Your task to perform on an android device: Search for pizza restaurants on Maps Image 0: 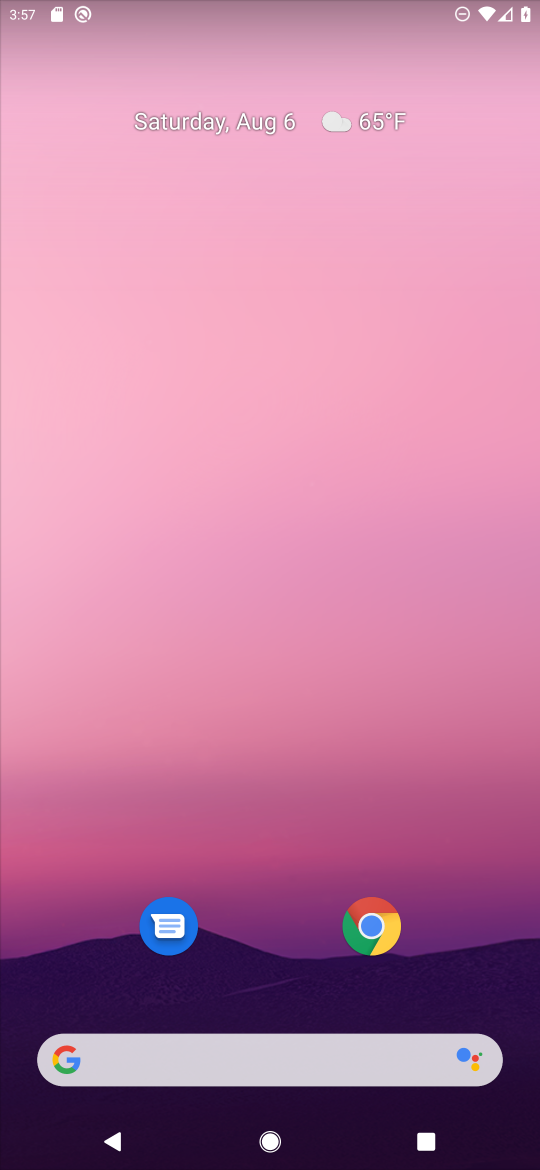
Step 0: drag from (265, 952) to (263, 293)
Your task to perform on an android device: Search for pizza restaurants on Maps Image 1: 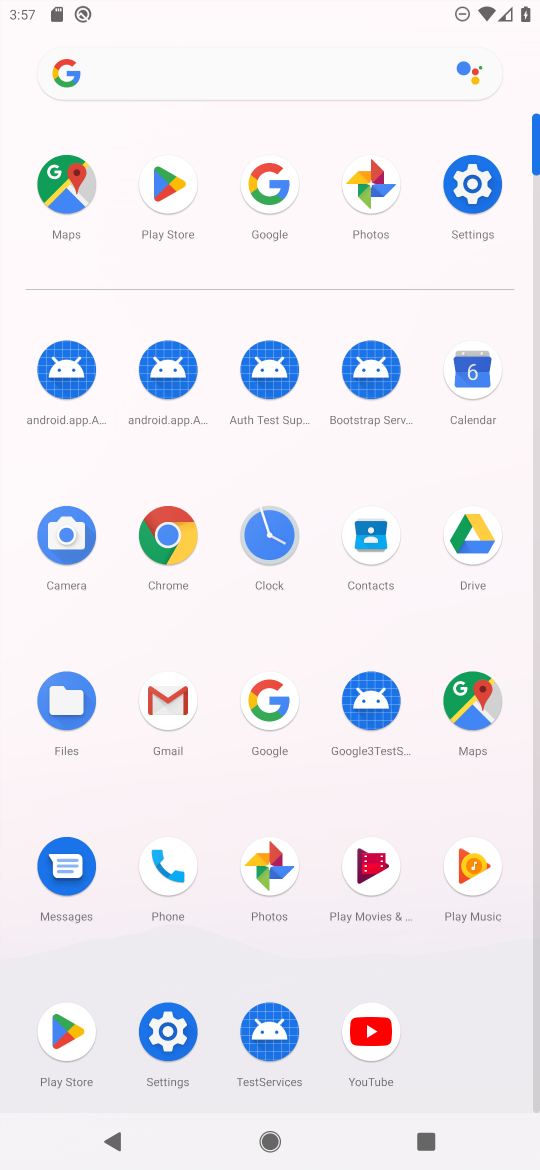
Step 1: click (70, 186)
Your task to perform on an android device: Search for pizza restaurants on Maps Image 2: 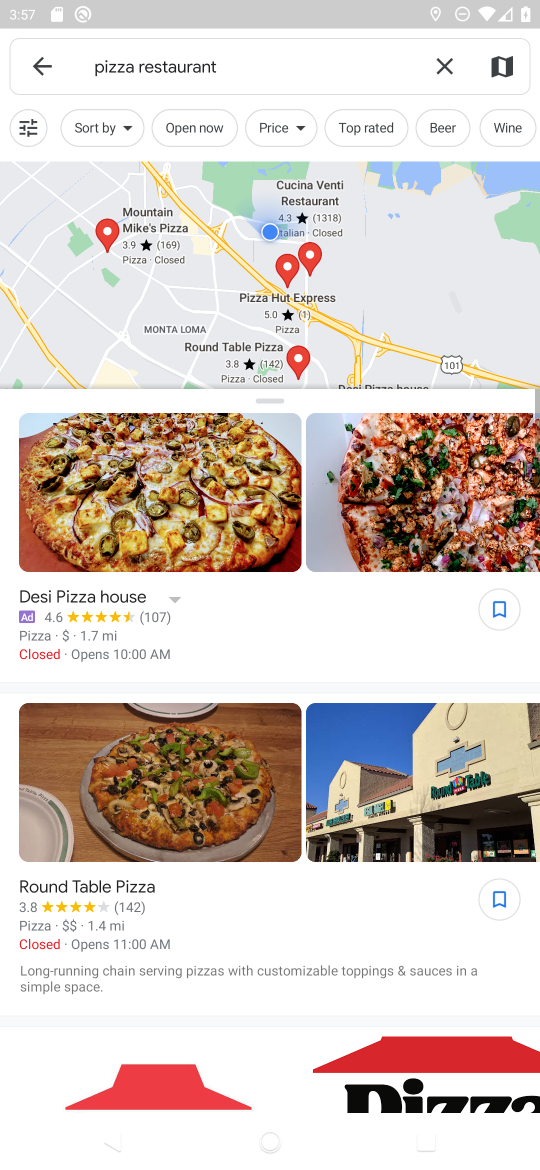
Step 2: click (428, 64)
Your task to perform on an android device: Search for pizza restaurants on Maps Image 3: 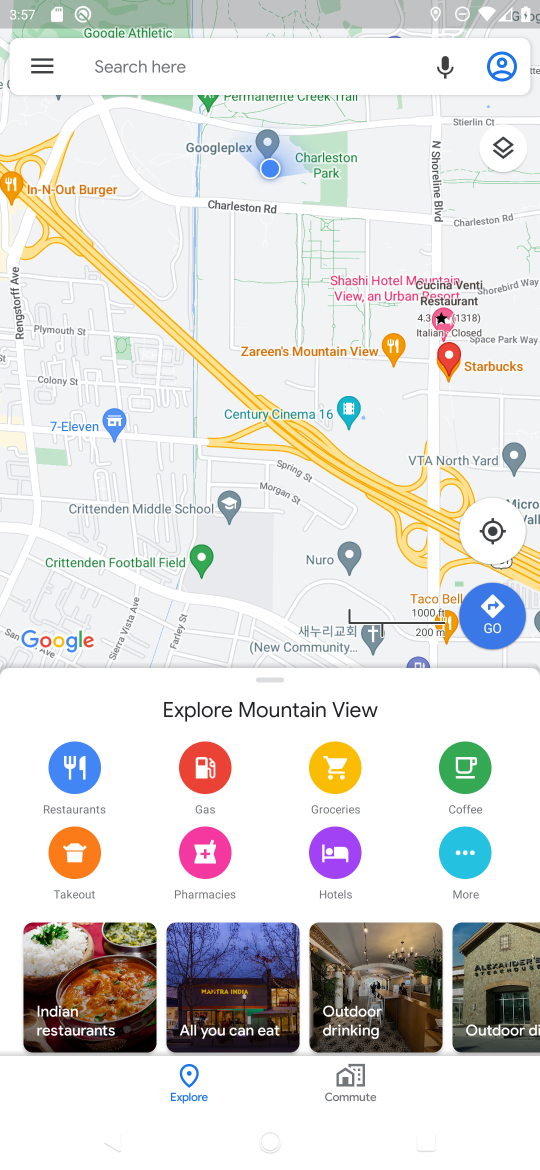
Step 3: click (275, 77)
Your task to perform on an android device: Search for pizza restaurants on Maps Image 4: 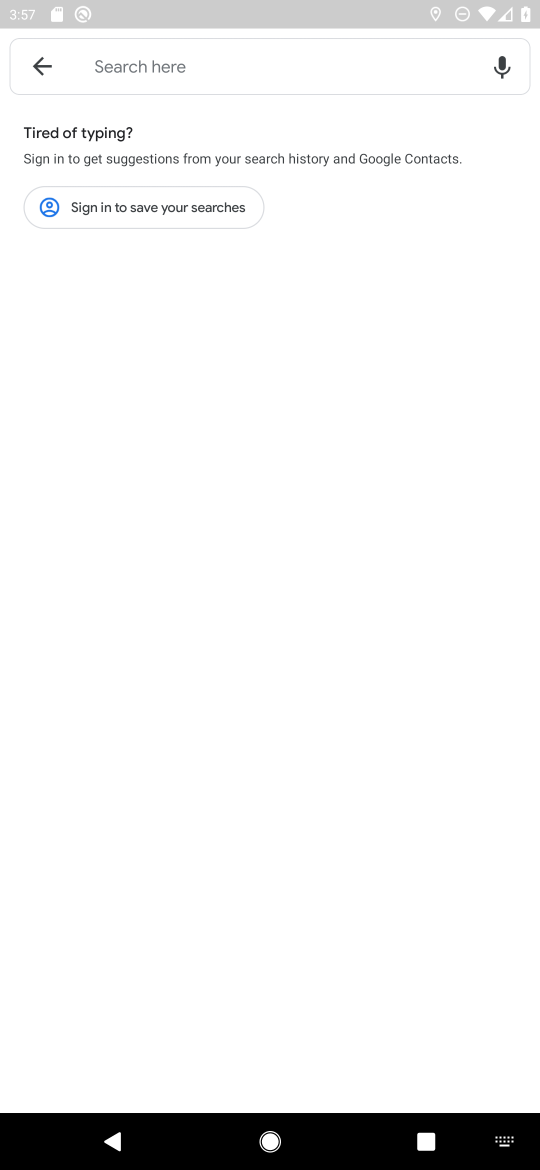
Step 4: type "pizza restaurants"
Your task to perform on an android device: Search for pizza restaurants on Maps Image 5: 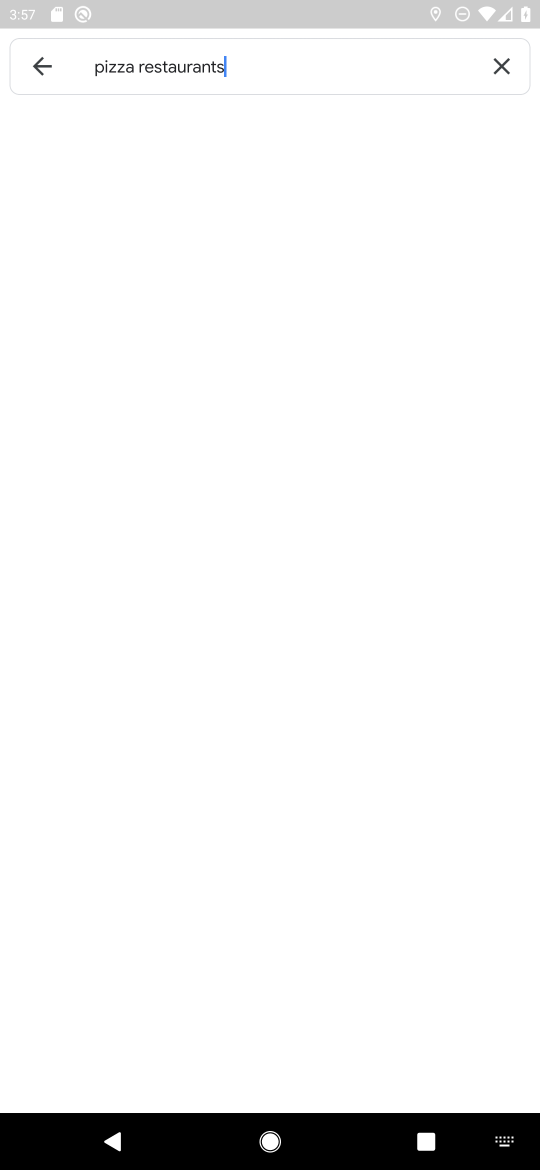
Step 5: type ""
Your task to perform on an android device: Search for pizza restaurants on Maps Image 6: 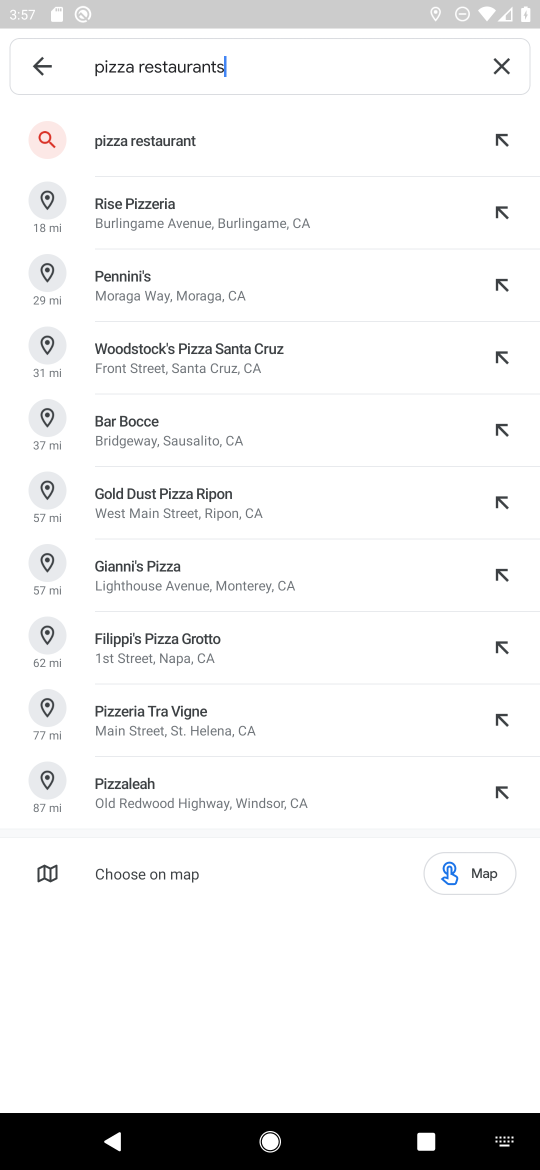
Step 6: click (208, 146)
Your task to perform on an android device: Search for pizza restaurants on Maps Image 7: 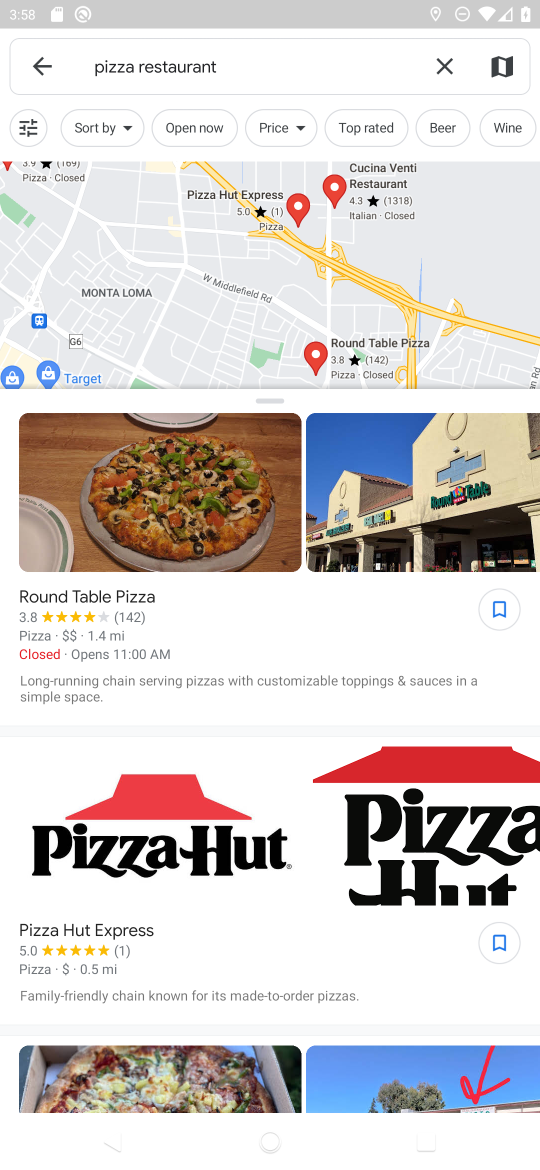
Step 7: task complete